Your task to perform on an android device: turn on priority inbox in the gmail app Image 0: 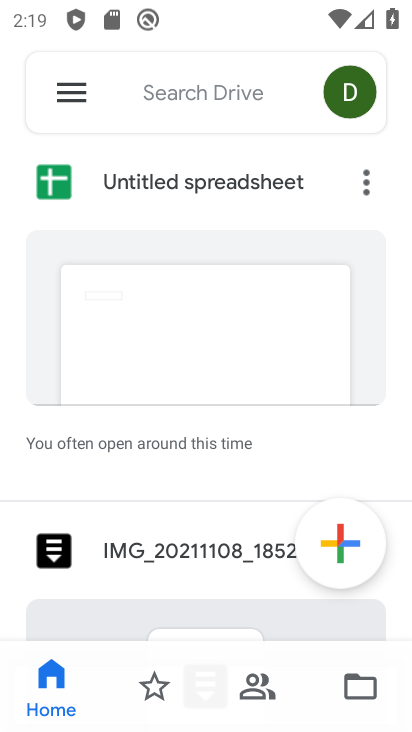
Step 0: press home button
Your task to perform on an android device: turn on priority inbox in the gmail app Image 1: 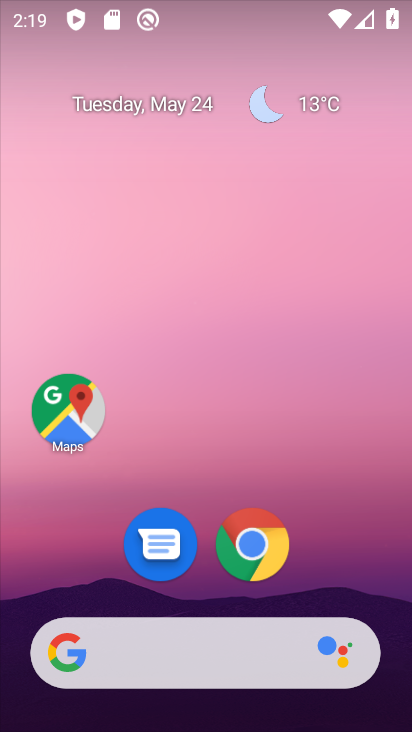
Step 1: drag from (345, 477) to (378, 118)
Your task to perform on an android device: turn on priority inbox in the gmail app Image 2: 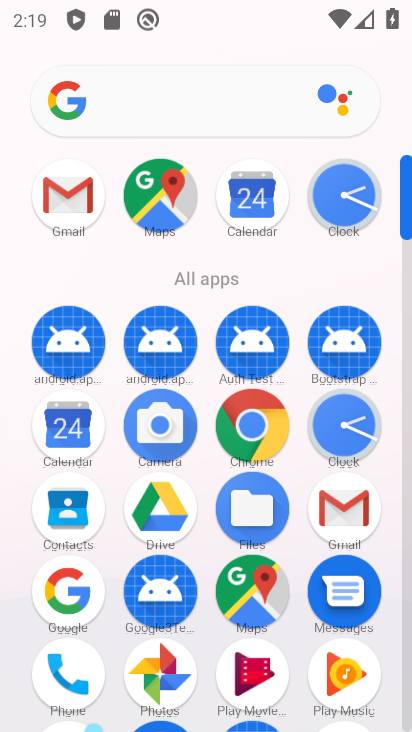
Step 2: click (333, 509)
Your task to perform on an android device: turn on priority inbox in the gmail app Image 3: 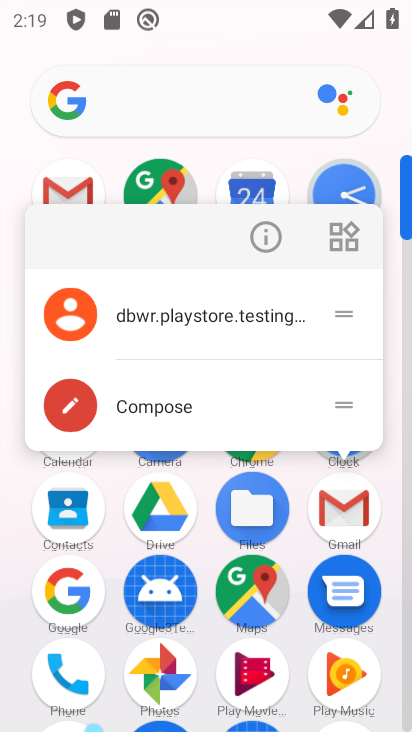
Step 3: click (342, 522)
Your task to perform on an android device: turn on priority inbox in the gmail app Image 4: 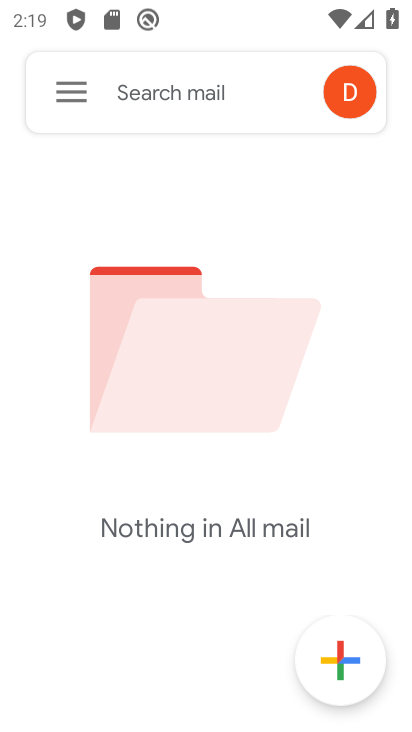
Step 4: click (91, 92)
Your task to perform on an android device: turn on priority inbox in the gmail app Image 5: 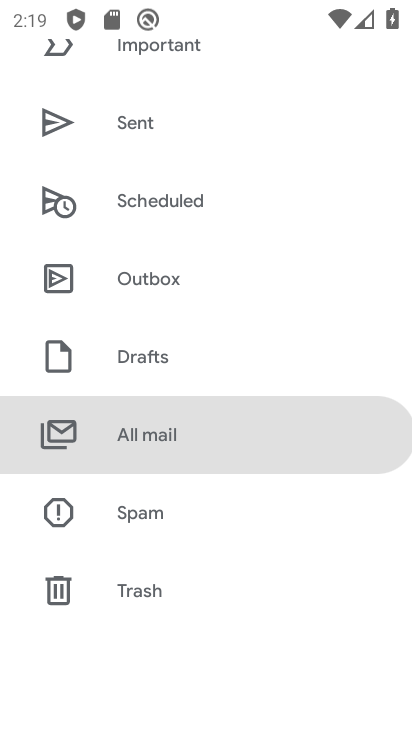
Step 5: drag from (178, 507) to (237, 144)
Your task to perform on an android device: turn on priority inbox in the gmail app Image 6: 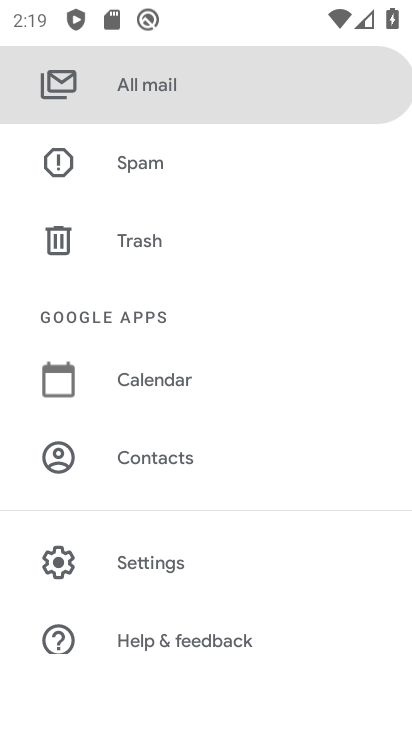
Step 6: click (125, 565)
Your task to perform on an android device: turn on priority inbox in the gmail app Image 7: 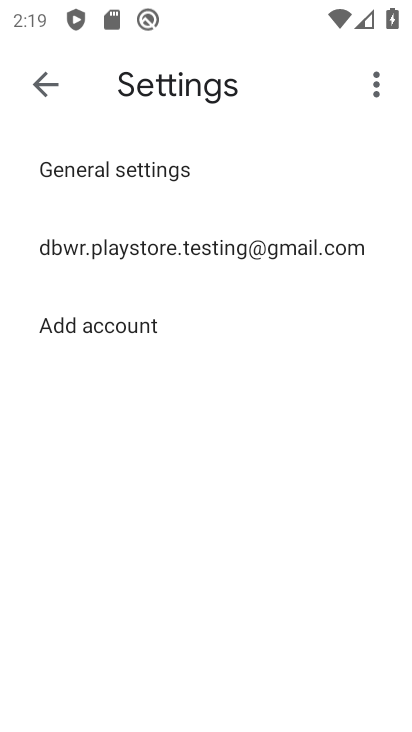
Step 7: click (187, 254)
Your task to perform on an android device: turn on priority inbox in the gmail app Image 8: 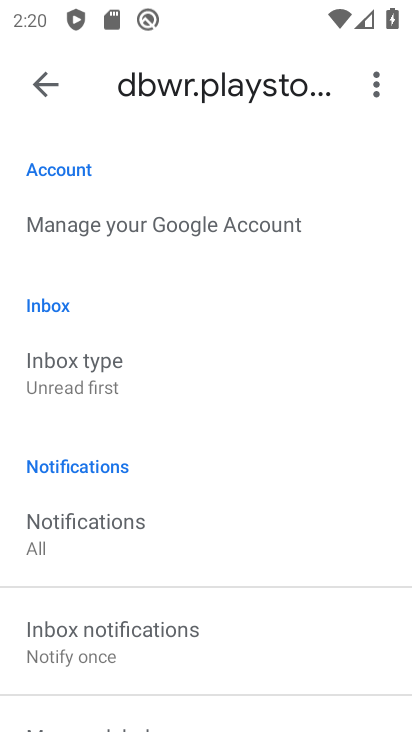
Step 8: click (101, 384)
Your task to perform on an android device: turn on priority inbox in the gmail app Image 9: 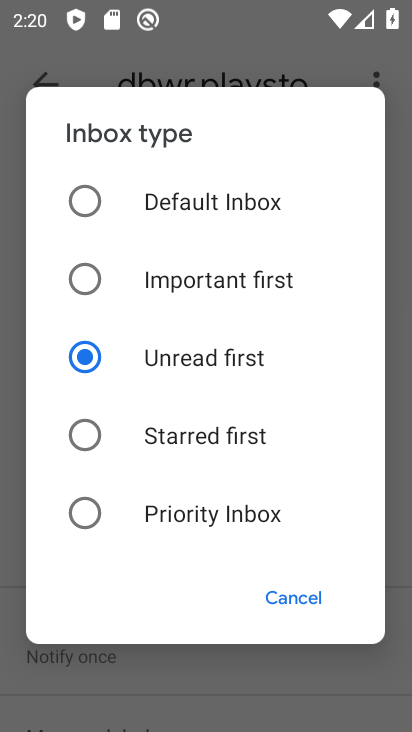
Step 9: click (145, 198)
Your task to perform on an android device: turn on priority inbox in the gmail app Image 10: 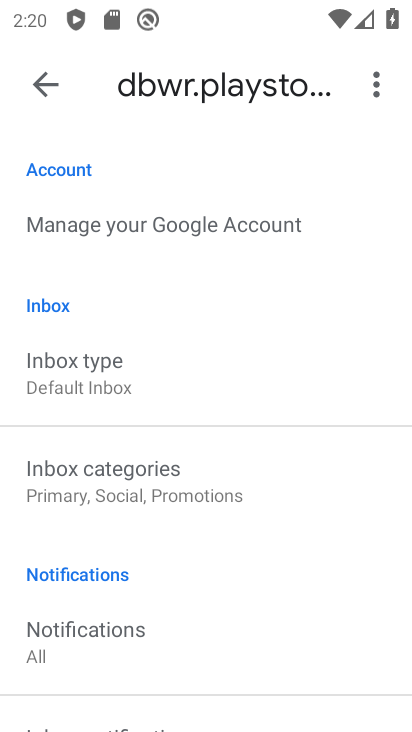
Step 10: task complete